Your task to perform on an android device: turn pop-ups off in chrome Image 0: 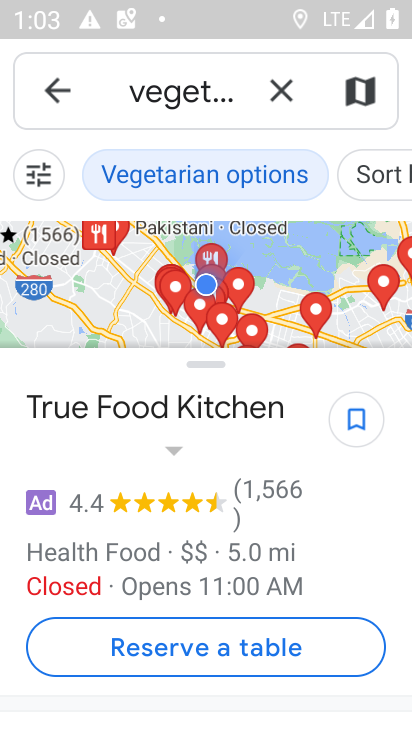
Step 0: press home button
Your task to perform on an android device: turn pop-ups off in chrome Image 1: 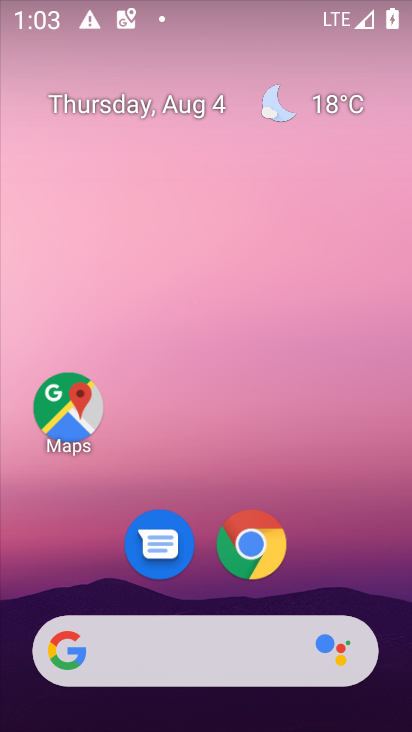
Step 1: click (215, 542)
Your task to perform on an android device: turn pop-ups off in chrome Image 2: 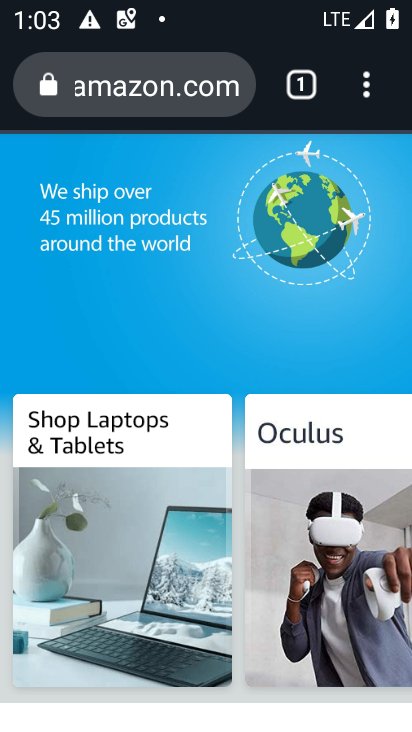
Step 2: press home button
Your task to perform on an android device: turn pop-ups off in chrome Image 3: 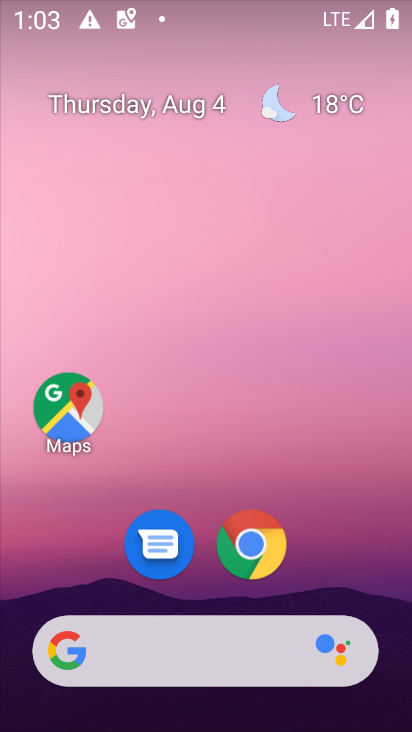
Step 3: click (260, 544)
Your task to perform on an android device: turn pop-ups off in chrome Image 4: 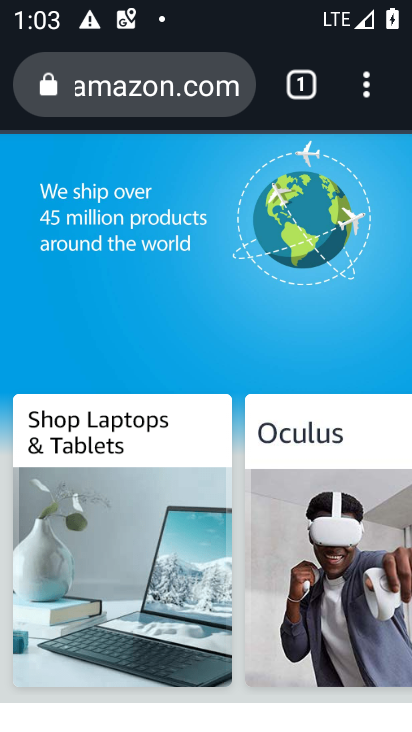
Step 4: click (366, 82)
Your task to perform on an android device: turn pop-ups off in chrome Image 5: 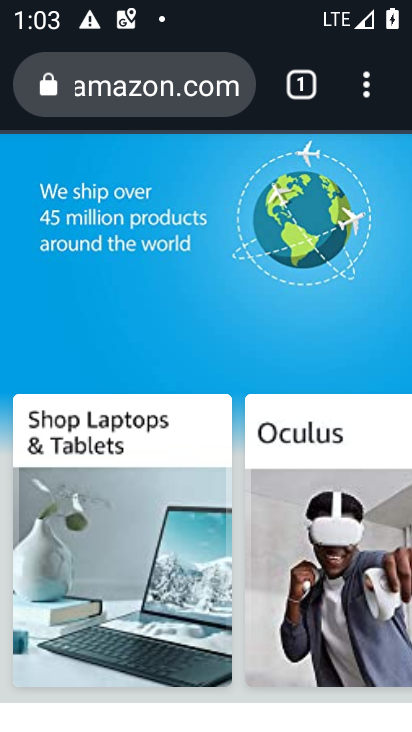
Step 5: click (366, 82)
Your task to perform on an android device: turn pop-ups off in chrome Image 6: 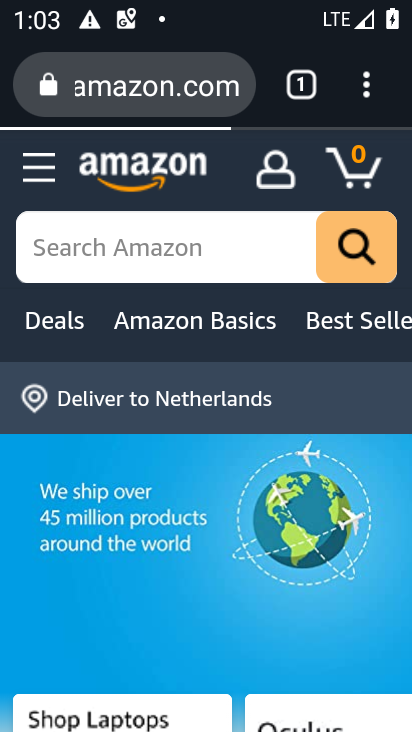
Step 6: click (366, 82)
Your task to perform on an android device: turn pop-ups off in chrome Image 7: 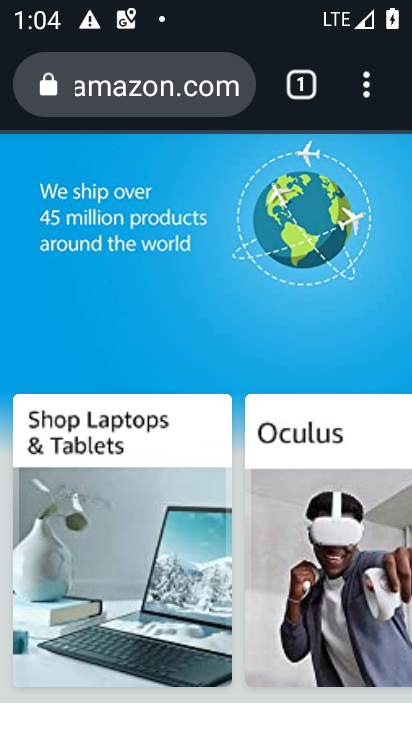
Step 7: click (368, 94)
Your task to perform on an android device: turn pop-ups off in chrome Image 8: 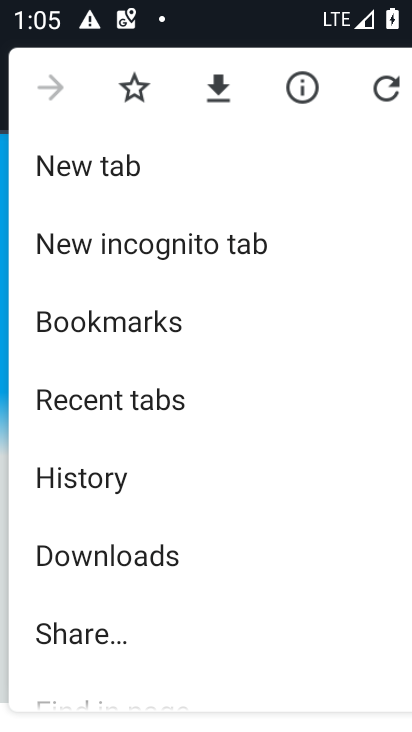
Step 8: drag from (246, 647) to (217, 280)
Your task to perform on an android device: turn pop-ups off in chrome Image 9: 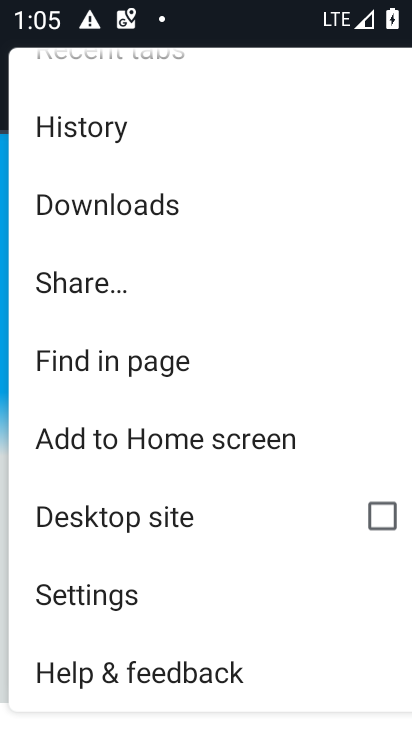
Step 9: click (93, 592)
Your task to perform on an android device: turn pop-ups off in chrome Image 10: 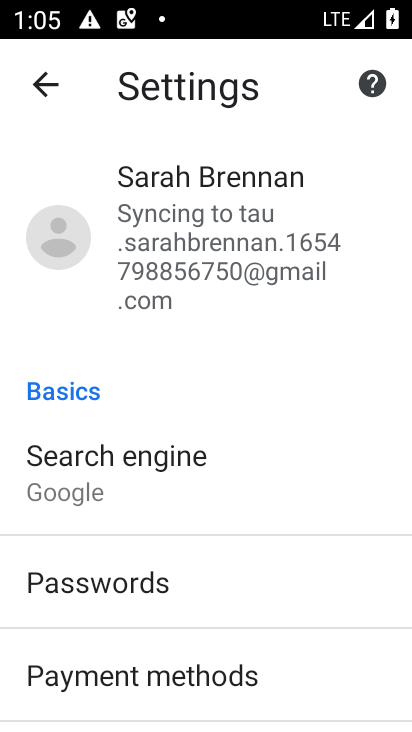
Step 10: drag from (314, 655) to (285, 362)
Your task to perform on an android device: turn pop-ups off in chrome Image 11: 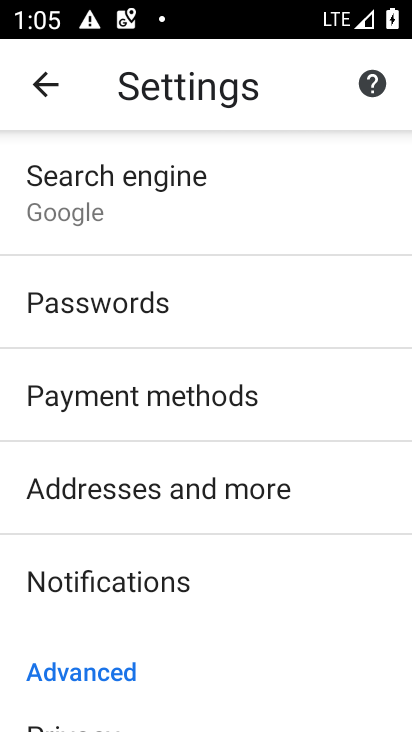
Step 11: drag from (265, 626) to (257, 249)
Your task to perform on an android device: turn pop-ups off in chrome Image 12: 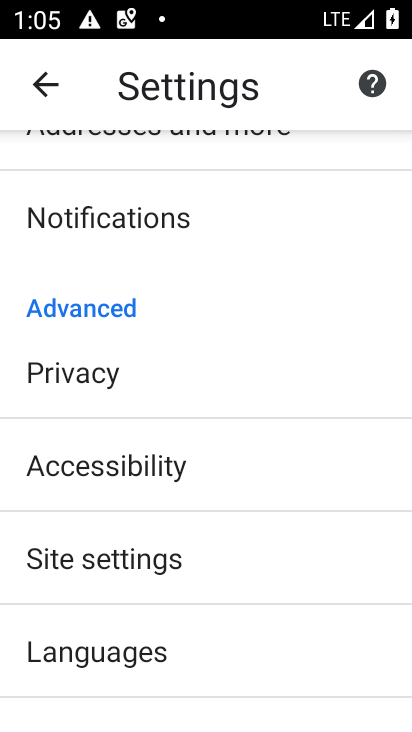
Step 12: click (111, 557)
Your task to perform on an android device: turn pop-ups off in chrome Image 13: 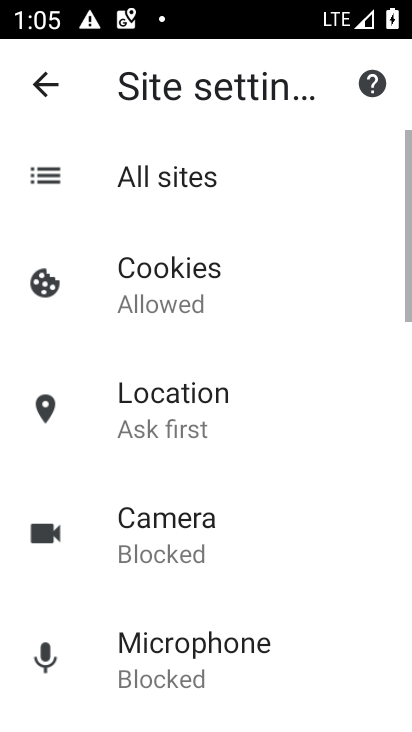
Step 13: drag from (317, 638) to (330, 239)
Your task to perform on an android device: turn pop-ups off in chrome Image 14: 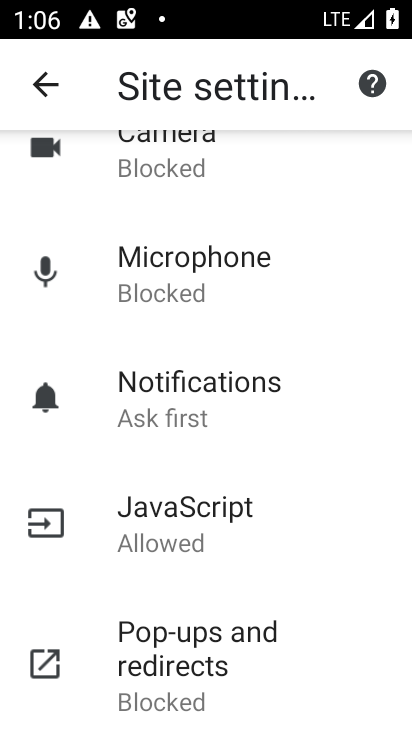
Step 14: click (181, 640)
Your task to perform on an android device: turn pop-ups off in chrome Image 15: 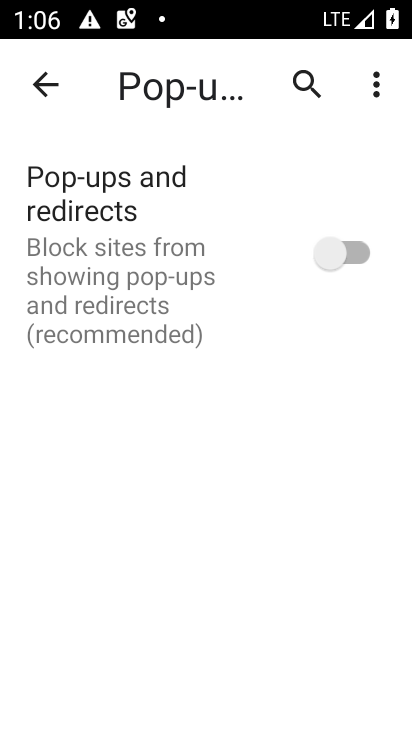
Step 15: task complete